Your task to perform on an android device: Turn off the flashlight Image 0: 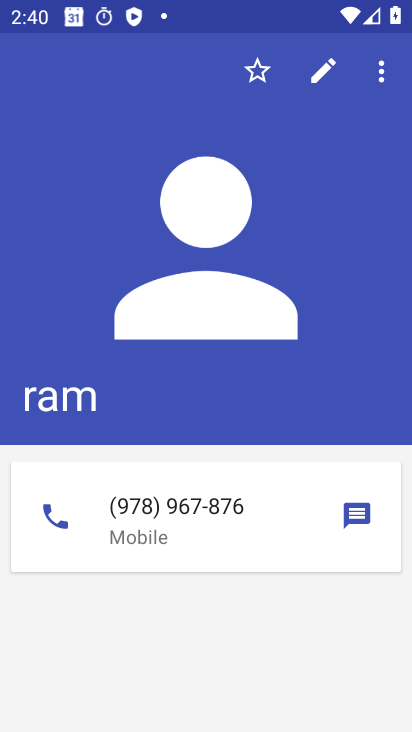
Step 0: press home button
Your task to perform on an android device: Turn off the flashlight Image 1: 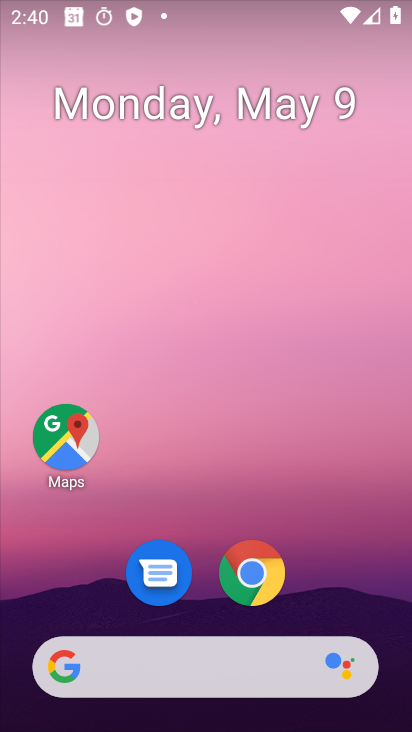
Step 1: drag from (271, 471) to (193, 10)
Your task to perform on an android device: Turn off the flashlight Image 2: 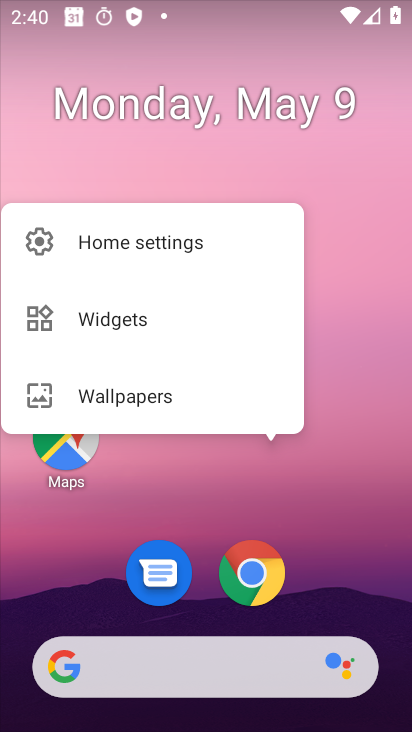
Step 2: drag from (208, 283) to (273, 210)
Your task to perform on an android device: Turn off the flashlight Image 3: 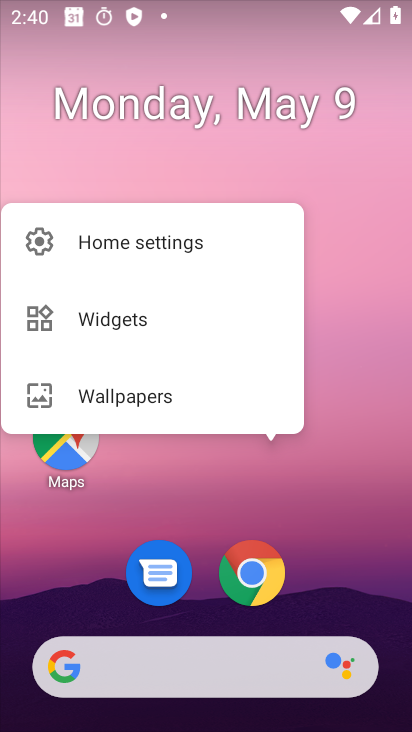
Step 3: click (327, 336)
Your task to perform on an android device: Turn off the flashlight Image 4: 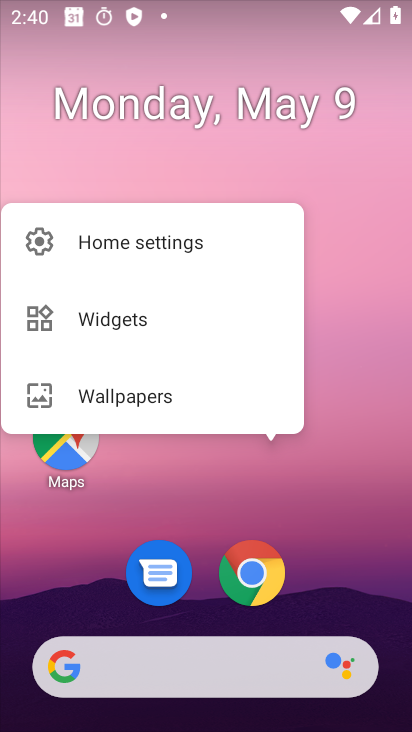
Step 4: click (328, 334)
Your task to perform on an android device: Turn off the flashlight Image 5: 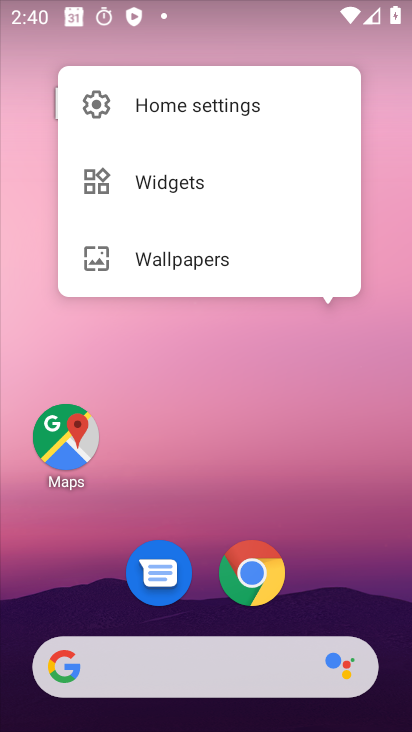
Step 5: task complete